Your task to perform on an android device: Search for Mexican restaurants on Maps Image 0: 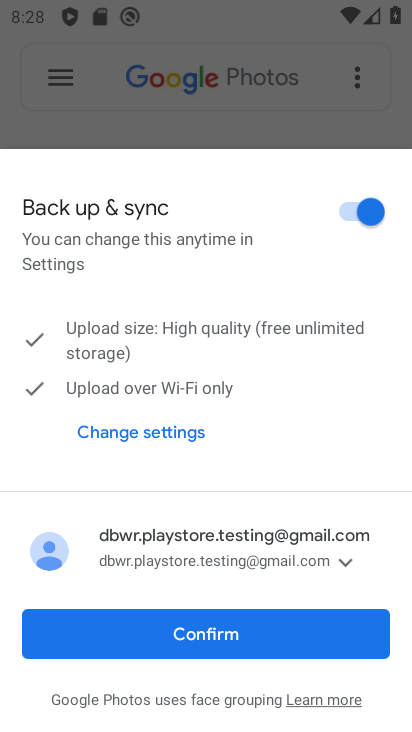
Step 0: press home button
Your task to perform on an android device: Search for Mexican restaurants on Maps Image 1: 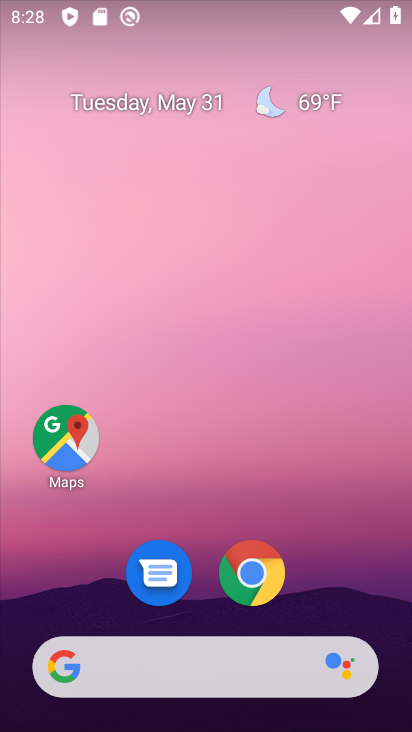
Step 1: click (81, 417)
Your task to perform on an android device: Search for Mexican restaurants on Maps Image 2: 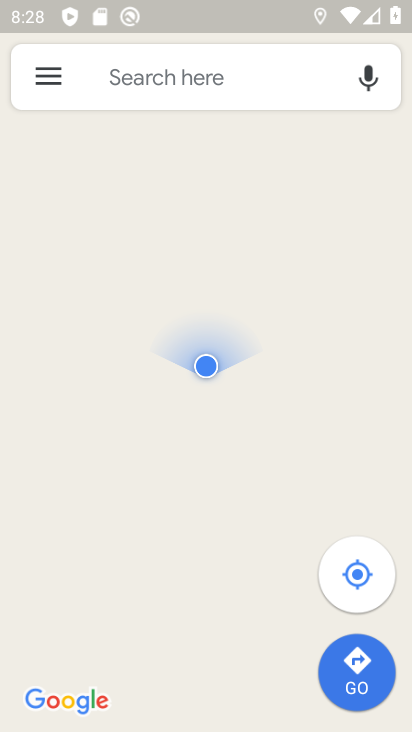
Step 2: click (219, 81)
Your task to perform on an android device: Search for Mexican restaurants on Maps Image 3: 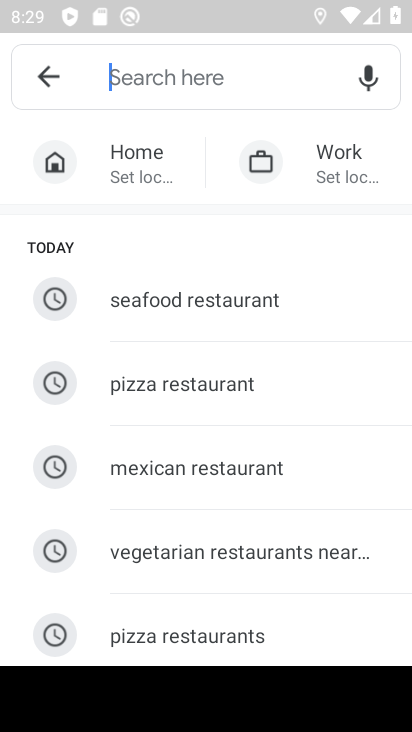
Step 3: type "Mexican Restaurants"
Your task to perform on an android device: Search for Mexican restaurants on Maps Image 4: 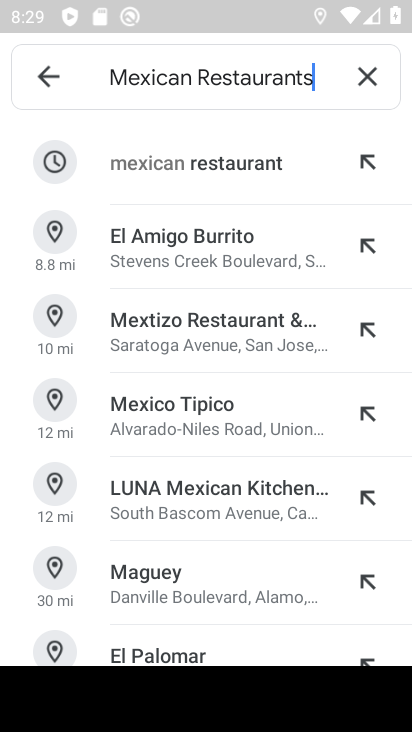
Step 4: click (165, 164)
Your task to perform on an android device: Search for Mexican restaurants on Maps Image 5: 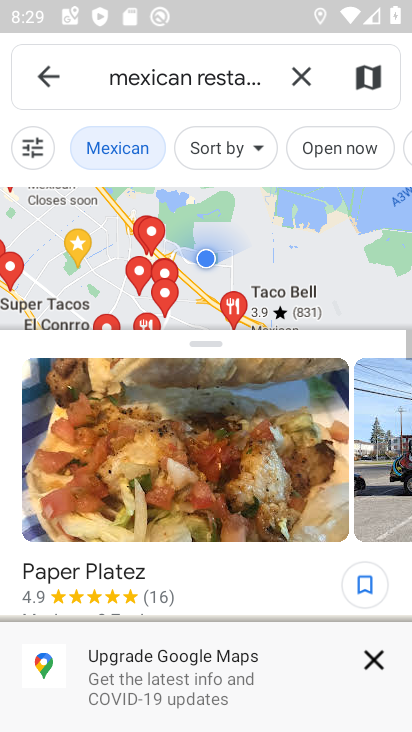
Step 5: task complete